Your task to perform on an android device: Go to privacy settings Image 0: 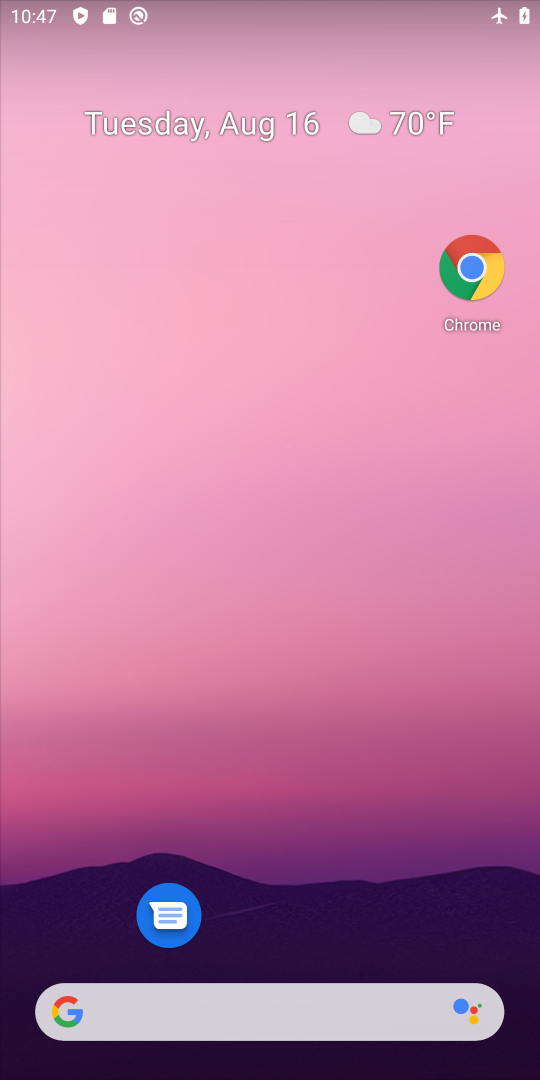
Step 0: drag from (292, 953) to (485, 33)
Your task to perform on an android device: Go to privacy settings Image 1: 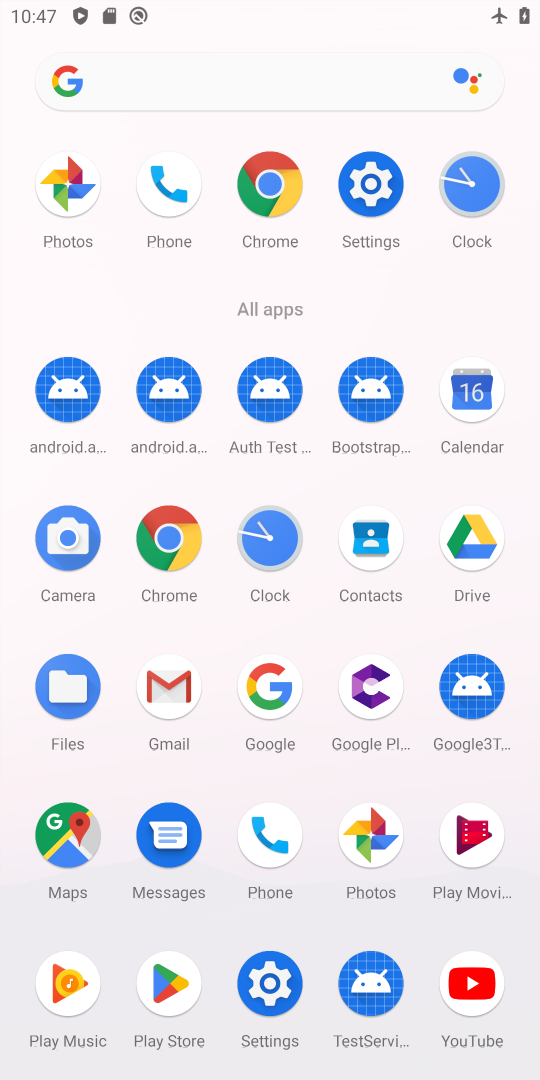
Step 1: click (266, 1016)
Your task to perform on an android device: Go to privacy settings Image 2: 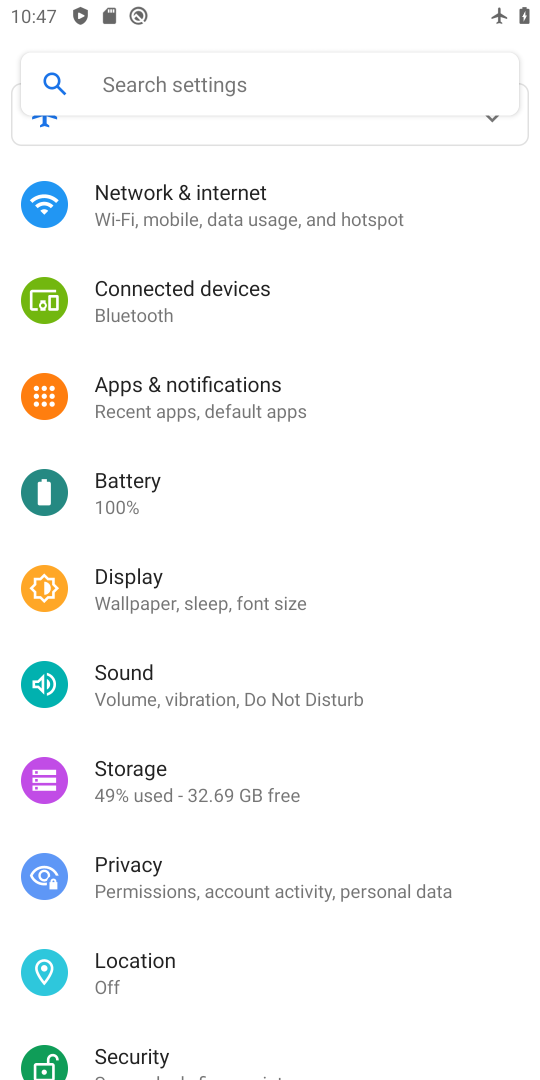
Step 2: drag from (266, 1016) to (322, 158)
Your task to perform on an android device: Go to privacy settings Image 3: 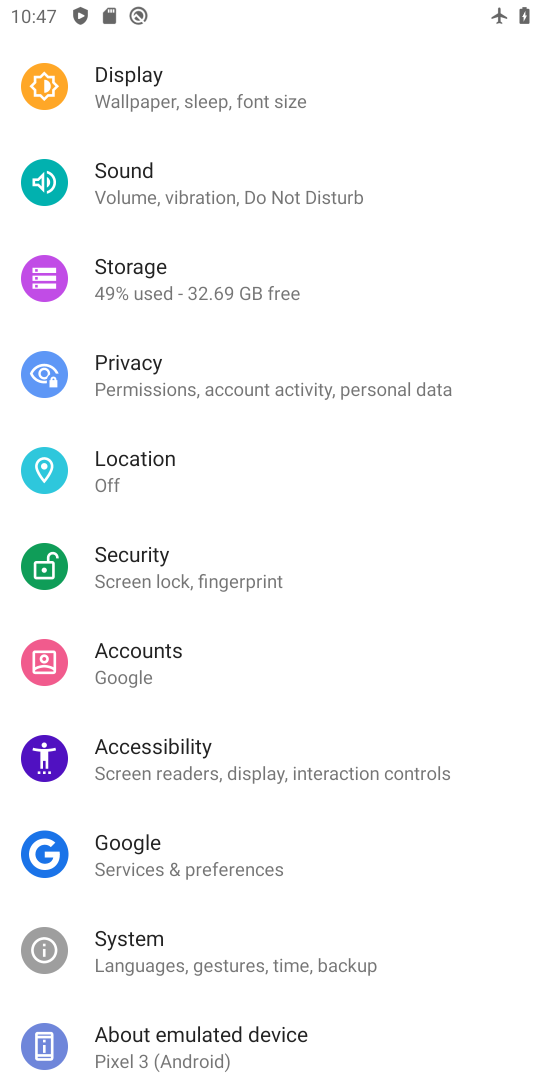
Step 3: click (181, 352)
Your task to perform on an android device: Go to privacy settings Image 4: 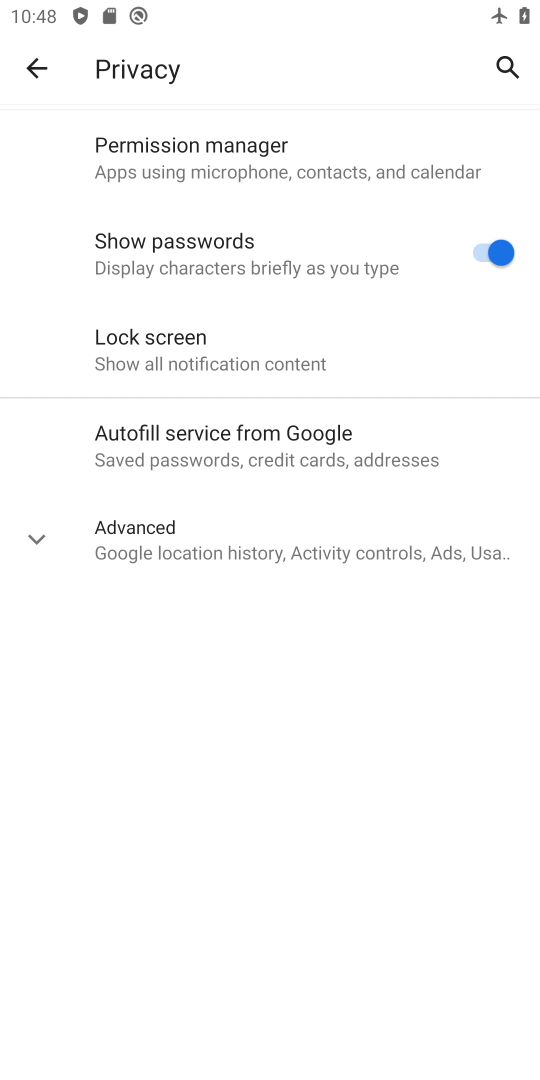
Step 4: task complete